Your task to perform on an android device: turn vacation reply on in the gmail app Image 0: 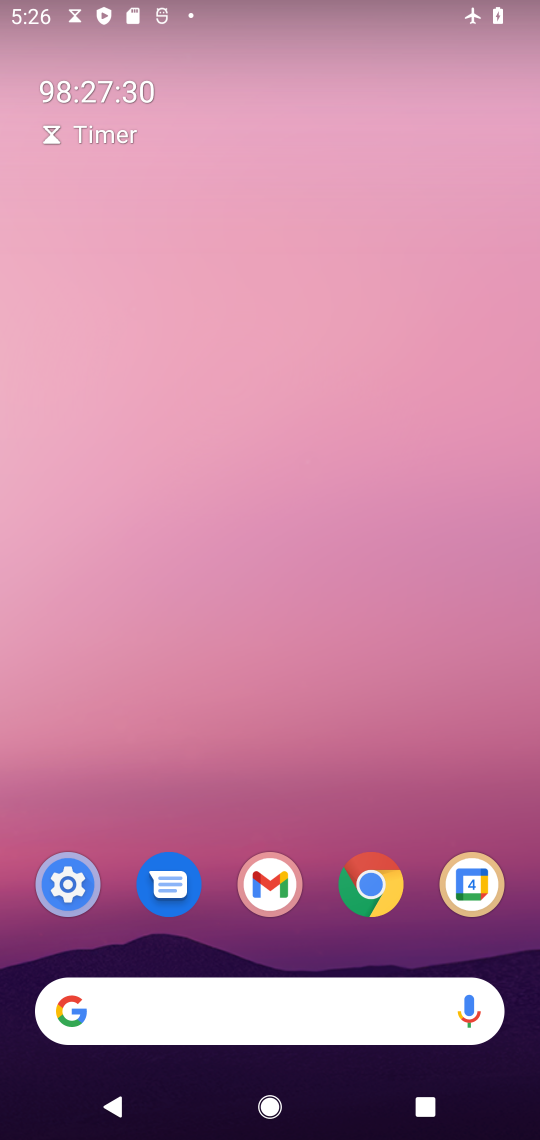
Step 0: drag from (246, 882) to (248, 69)
Your task to perform on an android device: turn vacation reply on in the gmail app Image 1: 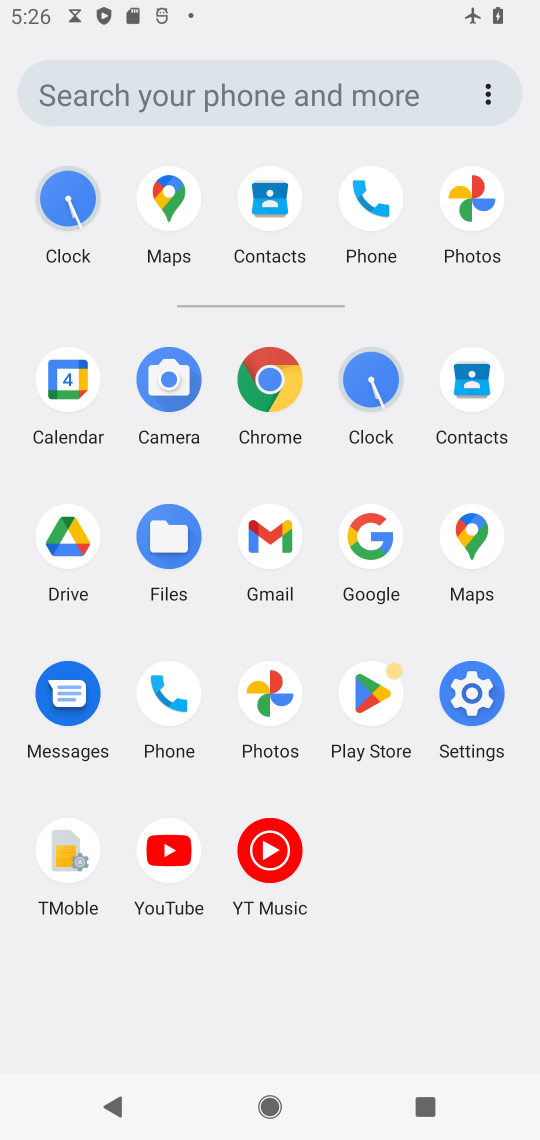
Step 1: click (270, 526)
Your task to perform on an android device: turn vacation reply on in the gmail app Image 2: 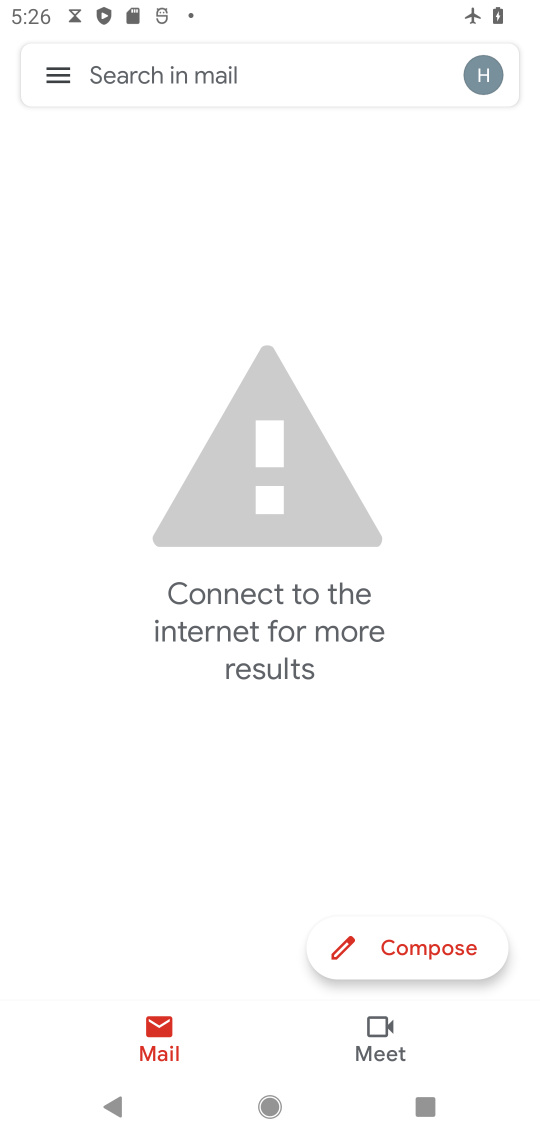
Step 2: click (45, 61)
Your task to perform on an android device: turn vacation reply on in the gmail app Image 3: 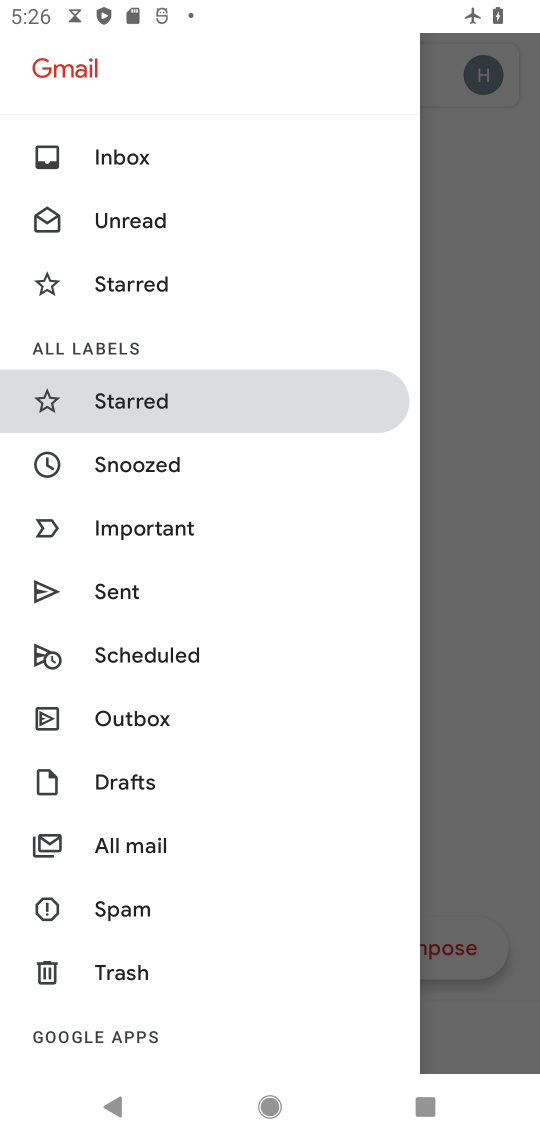
Step 3: drag from (55, 880) to (167, 346)
Your task to perform on an android device: turn vacation reply on in the gmail app Image 4: 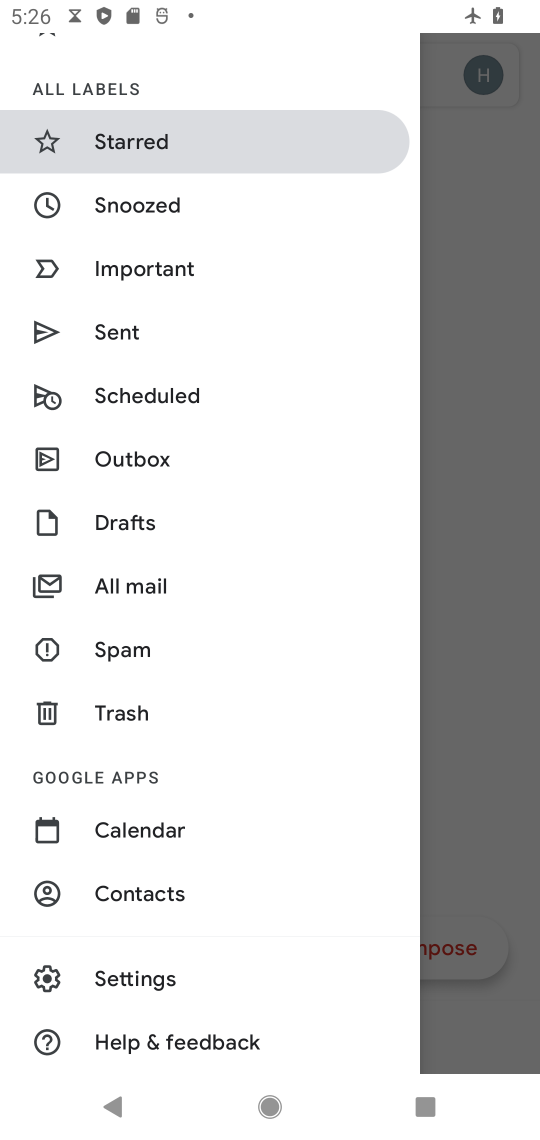
Step 4: click (155, 982)
Your task to perform on an android device: turn vacation reply on in the gmail app Image 5: 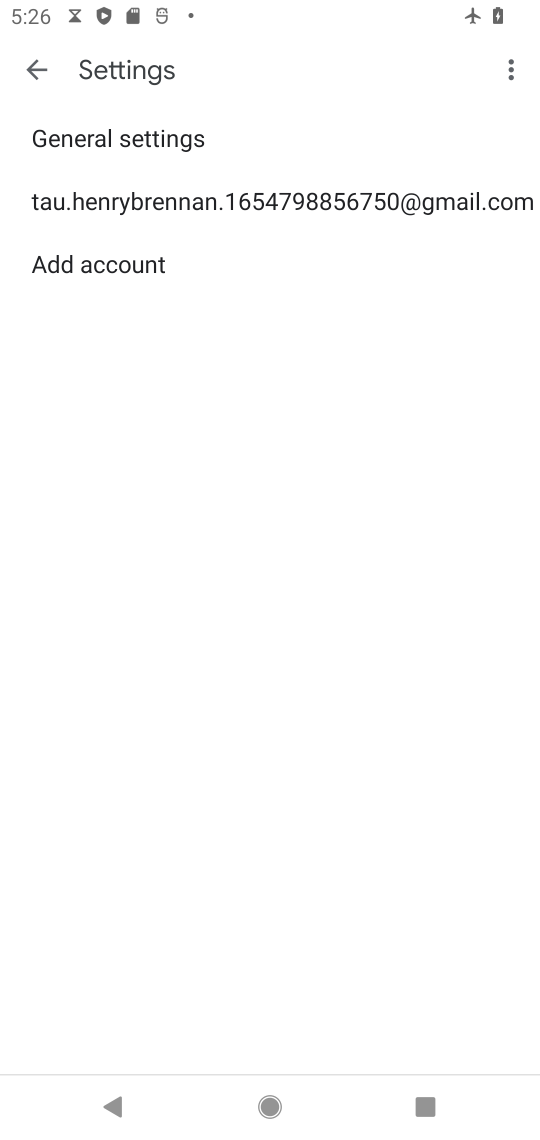
Step 5: click (79, 191)
Your task to perform on an android device: turn vacation reply on in the gmail app Image 6: 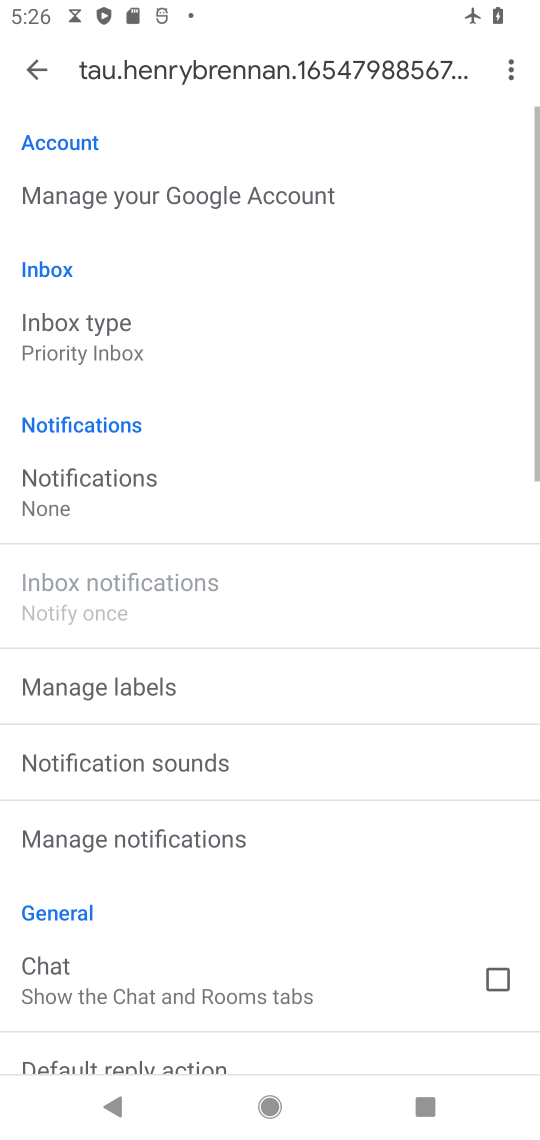
Step 6: drag from (248, 936) to (321, 344)
Your task to perform on an android device: turn vacation reply on in the gmail app Image 7: 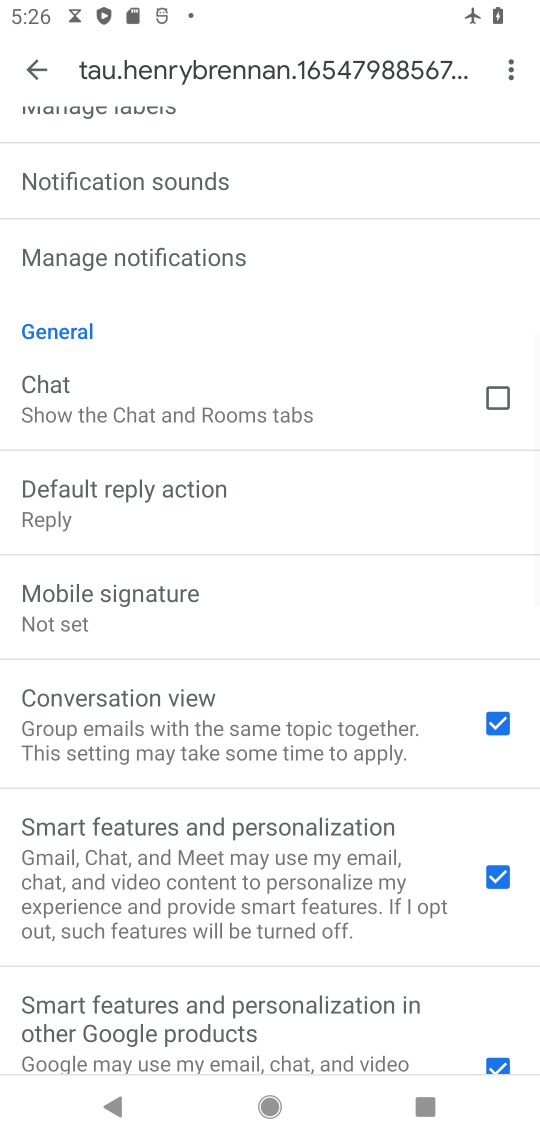
Step 7: drag from (149, 969) to (256, 450)
Your task to perform on an android device: turn vacation reply on in the gmail app Image 8: 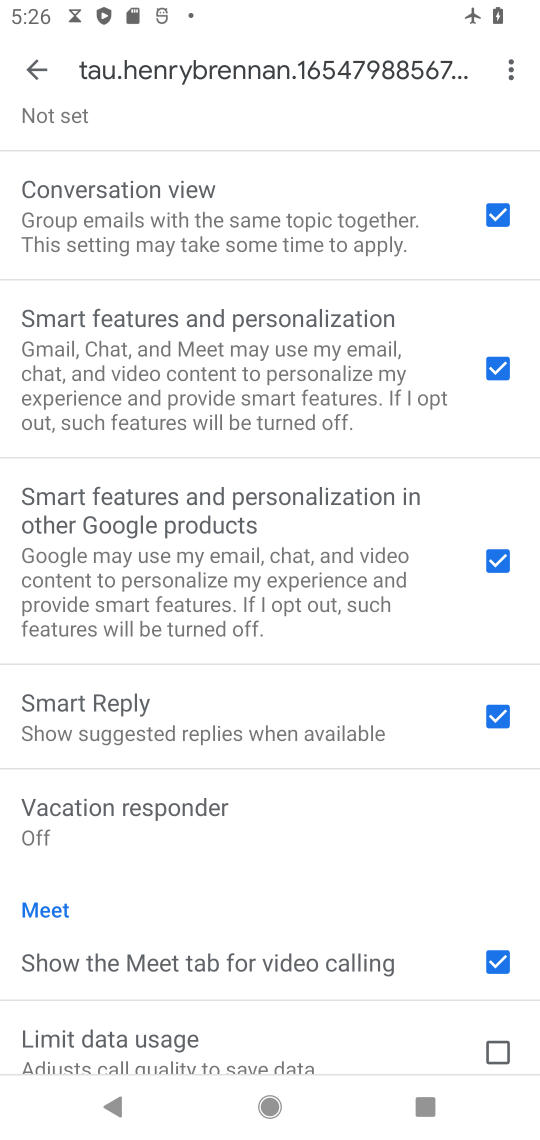
Step 8: click (128, 811)
Your task to perform on an android device: turn vacation reply on in the gmail app Image 9: 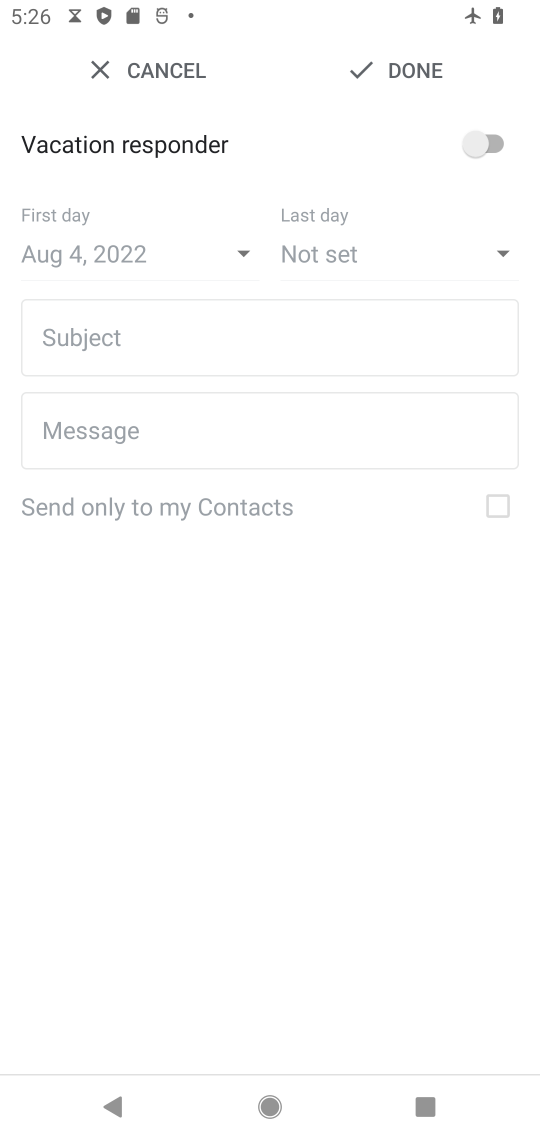
Step 9: click (471, 132)
Your task to perform on an android device: turn vacation reply on in the gmail app Image 10: 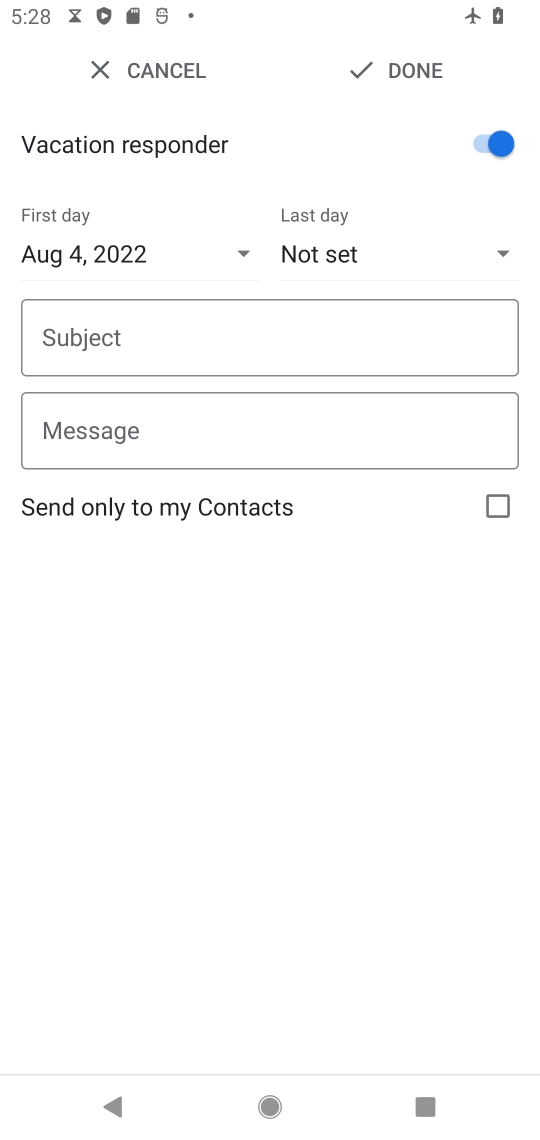
Step 10: task complete